Your task to perform on an android device: turn notification dots on Image 0: 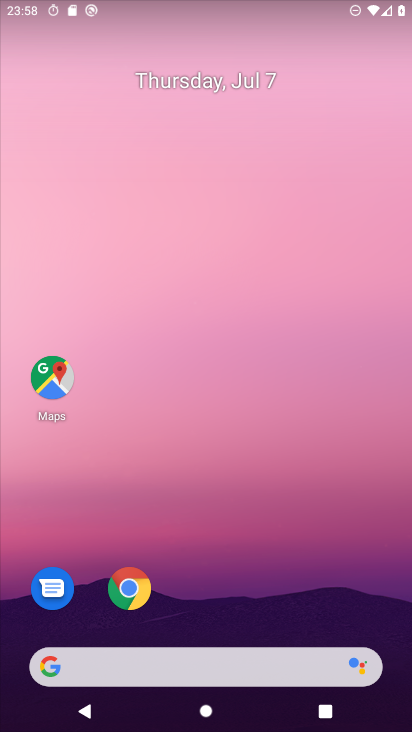
Step 0: drag from (260, 571) to (319, 157)
Your task to perform on an android device: turn notification dots on Image 1: 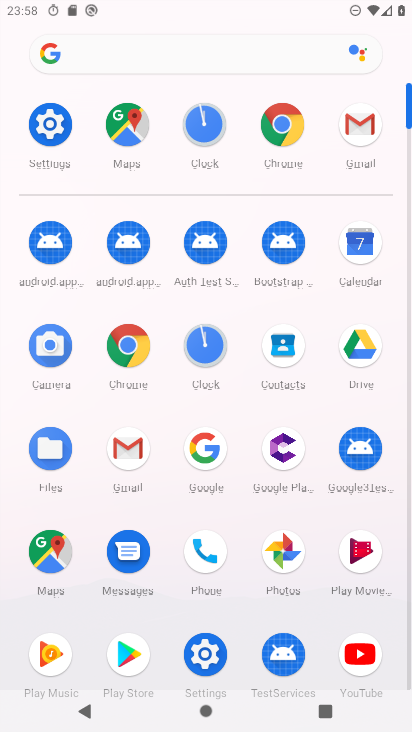
Step 1: click (61, 125)
Your task to perform on an android device: turn notification dots on Image 2: 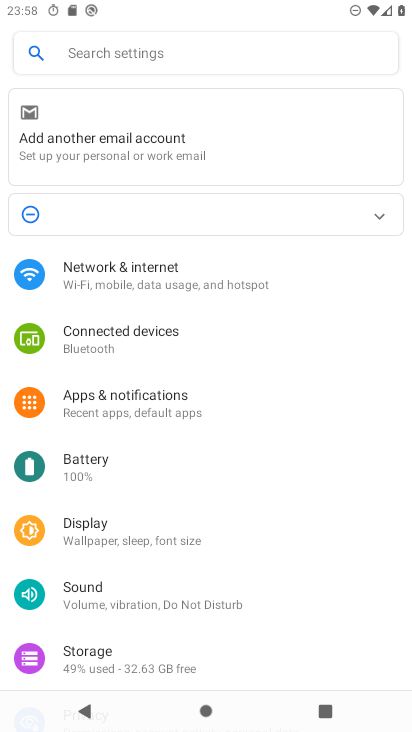
Step 2: click (154, 388)
Your task to perform on an android device: turn notification dots on Image 3: 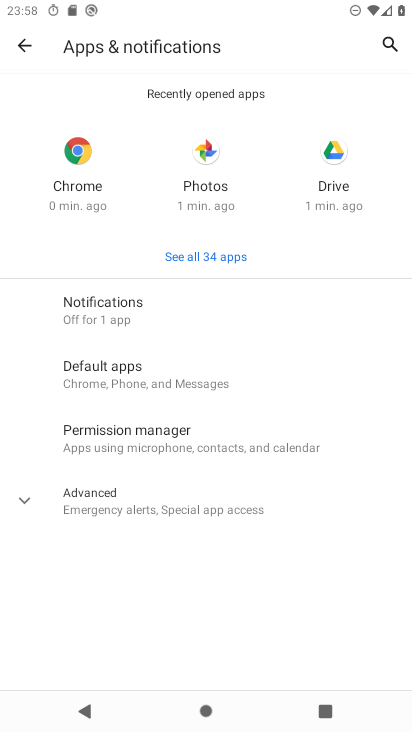
Step 3: click (155, 301)
Your task to perform on an android device: turn notification dots on Image 4: 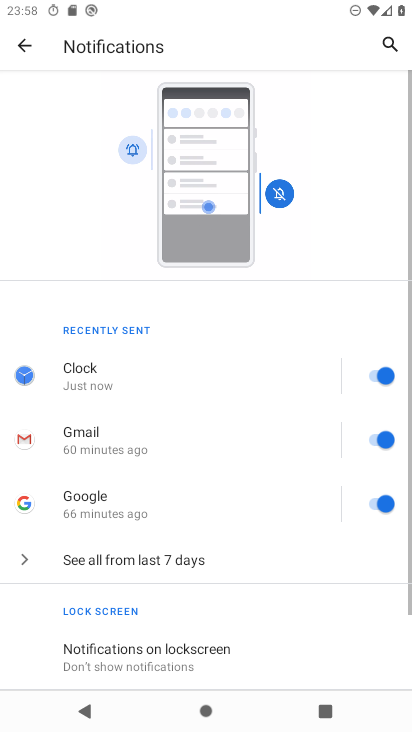
Step 4: drag from (272, 647) to (374, 163)
Your task to perform on an android device: turn notification dots on Image 5: 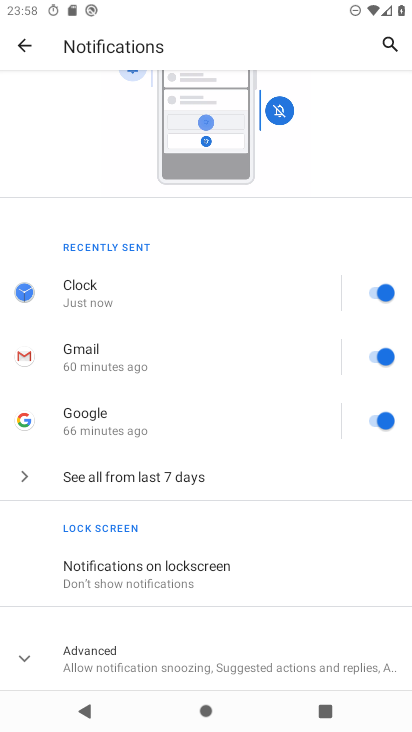
Step 5: click (164, 658)
Your task to perform on an android device: turn notification dots on Image 6: 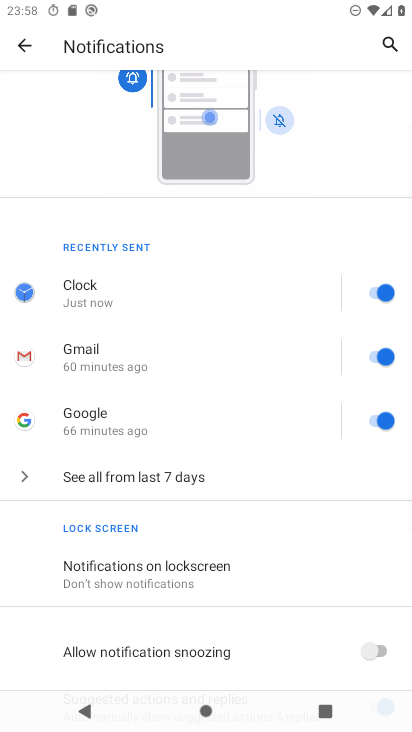
Step 6: drag from (233, 614) to (280, 230)
Your task to perform on an android device: turn notification dots on Image 7: 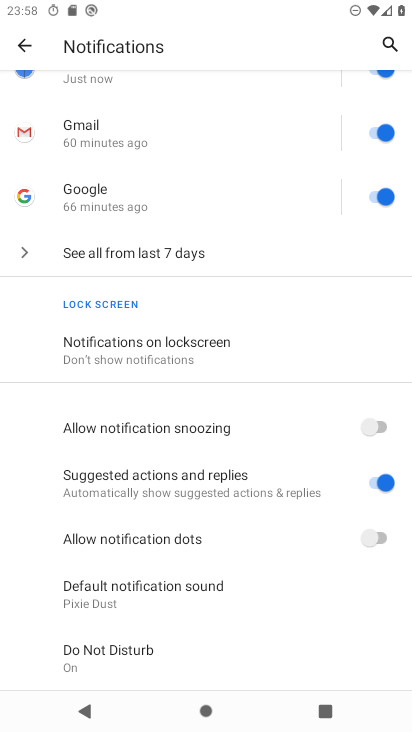
Step 7: click (386, 542)
Your task to perform on an android device: turn notification dots on Image 8: 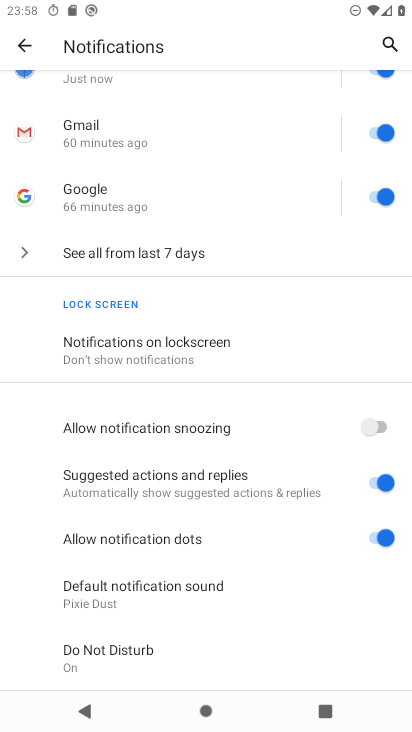
Step 8: task complete